Your task to perform on an android device: allow notifications from all sites in the chrome app Image 0: 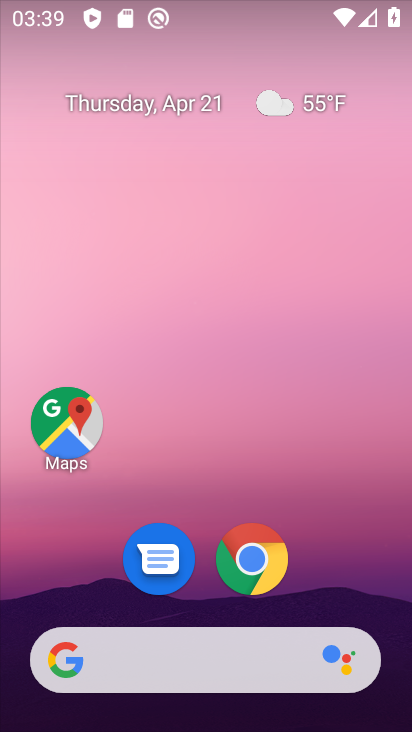
Step 0: click (251, 563)
Your task to perform on an android device: allow notifications from all sites in the chrome app Image 1: 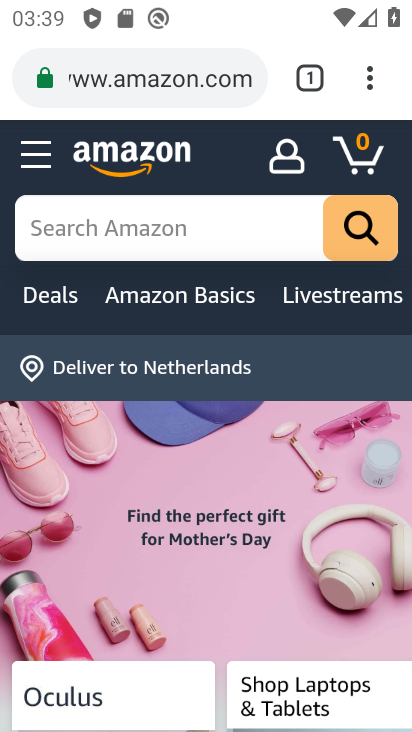
Step 1: click (378, 86)
Your task to perform on an android device: allow notifications from all sites in the chrome app Image 2: 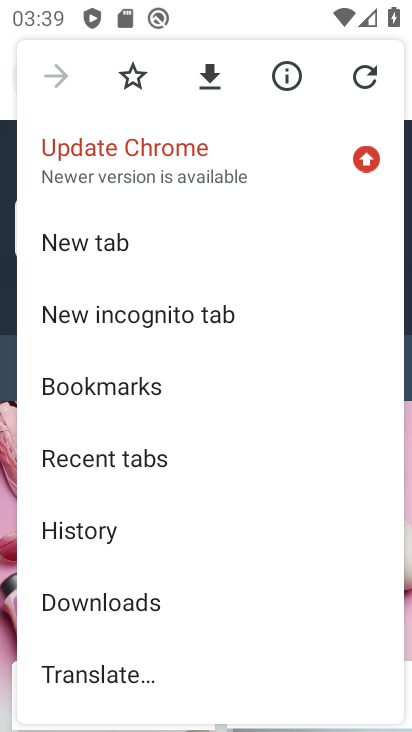
Step 2: drag from (231, 647) to (197, 267)
Your task to perform on an android device: allow notifications from all sites in the chrome app Image 3: 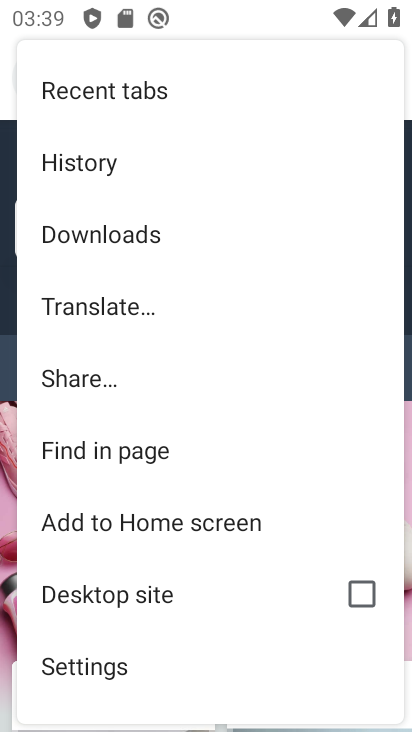
Step 3: click (144, 663)
Your task to perform on an android device: allow notifications from all sites in the chrome app Image 4: 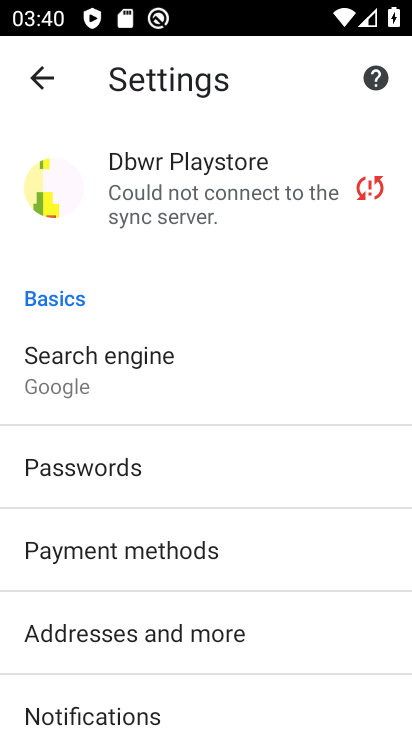
Step 4: drag from (239, 506) to (200, 267)
Your task to perform on an android device: allow notifications from all sites in the chrome app Image 5: 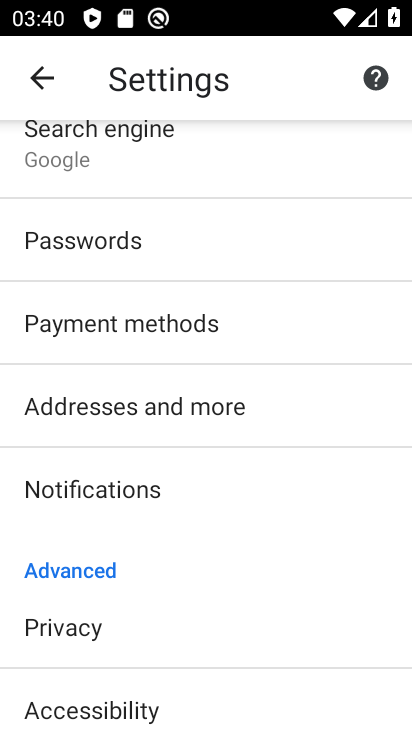
Step 5: click (116, 482)
Your task to perform on an android device: allow notifications from all sites in the chrome app Image 6: 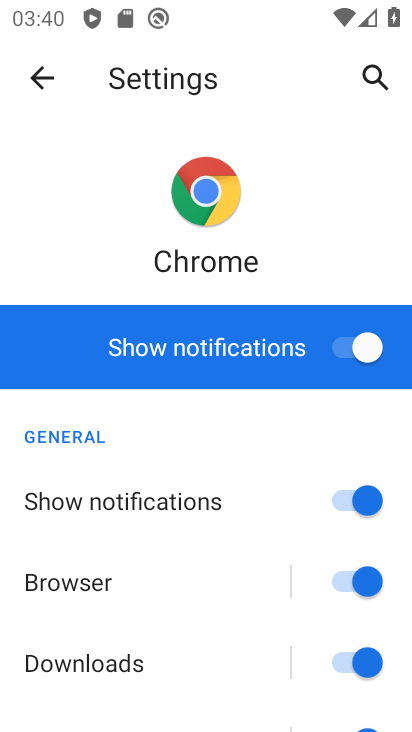
Step 6: task complete